Your task to perform on an android device: What's on my calendar today? Image 0: 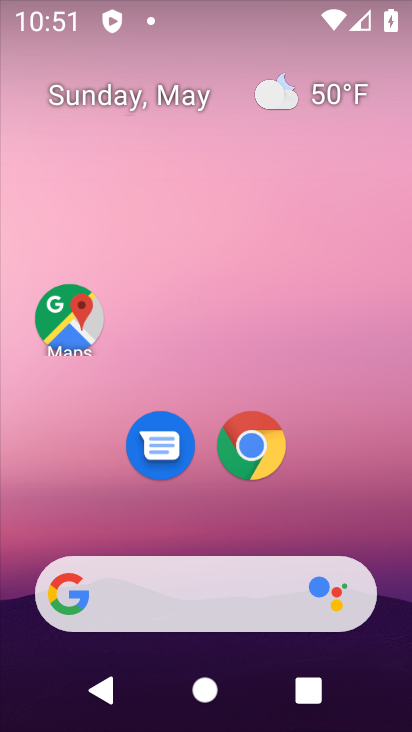
Step 0: drag from (216, 515) to (230, 51)
Your task to perform on an android device: What's on my calendar today? Image 1: 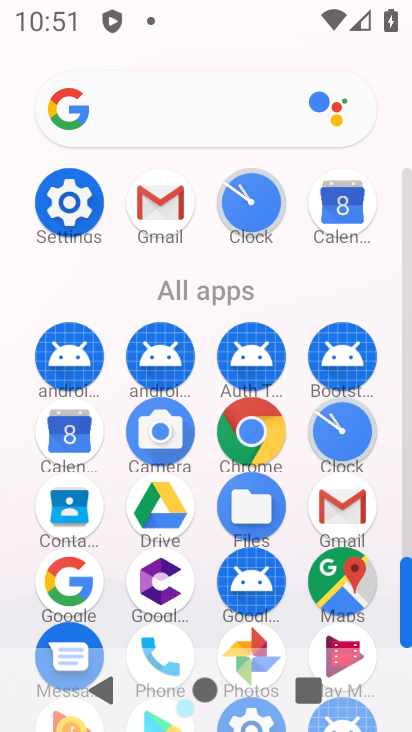
Step 1: click (82, 436)
Your task to perform on an android device: What's on my calendar today? Image 2: 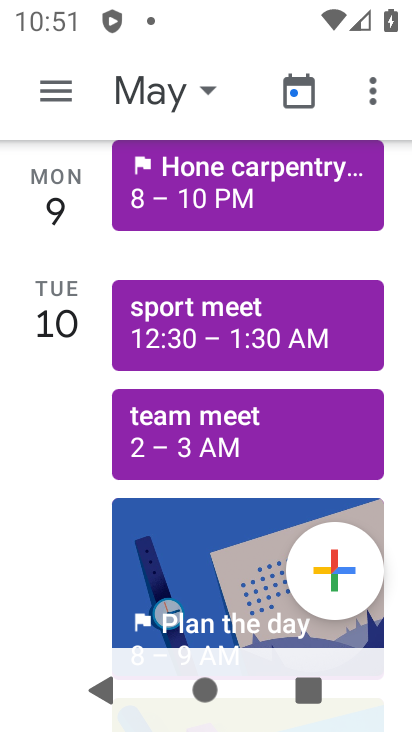
Step 2: click (61, 85)
Your task to perform on an android device: What's on my calendar today? Image 3: 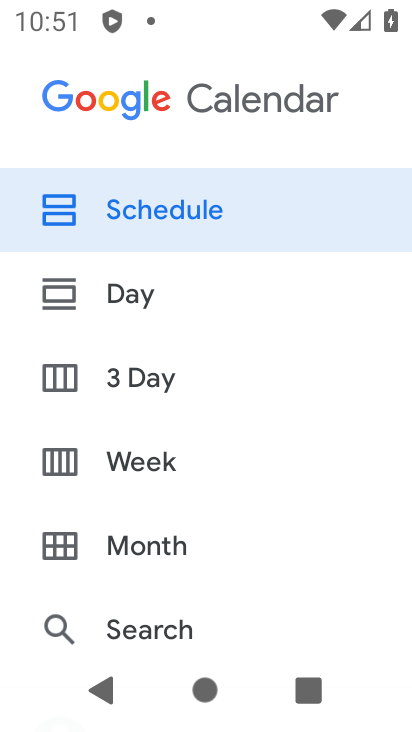
Step 3: click (156, 299)
Your task to perform on an android device: What's on my calendar today? Image 4: 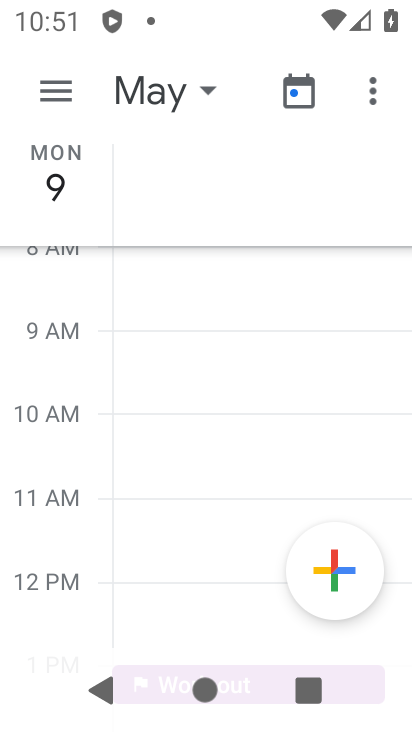
Step 4: task complete